Your task to perform on an android device: move an email to a new category in the gmail app Image 0: 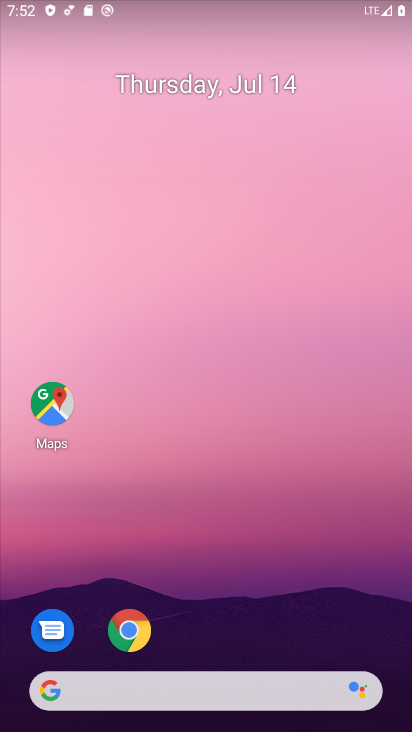
Step 0: drag from (219, 664) to (223, 377)
Your task to perform on an android device: move an email to a new category in the gmail app Image 1: 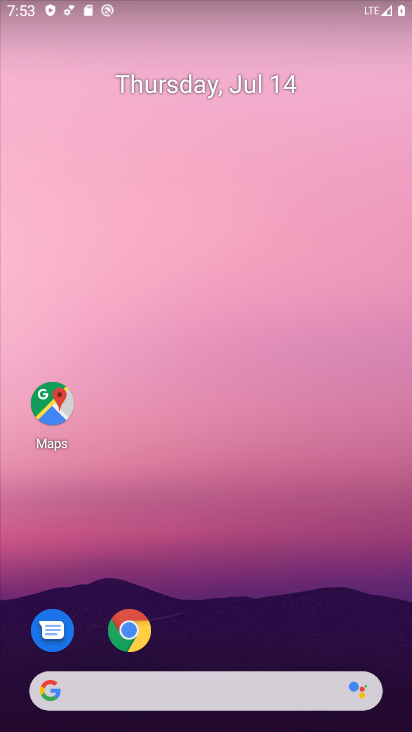
Step 1: drag from (171, 651) to (239, 174)
Your task to perform on an android device: move an email to a new category in the gmail app Image 2: 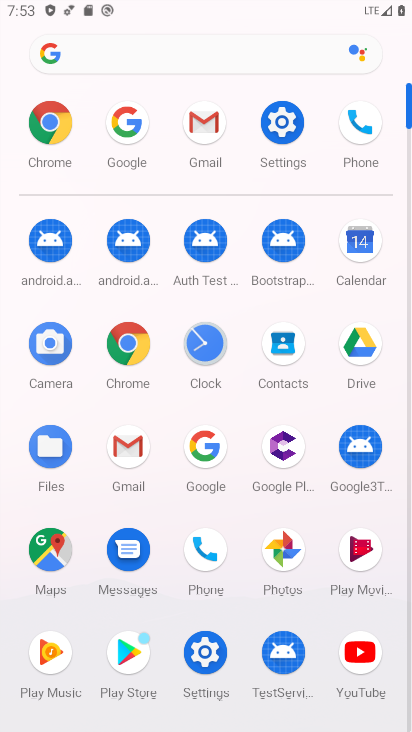
Step 2: click (194, 116)
Your task to perform on an android device: move an email to a new category in the gmail app Image 3: 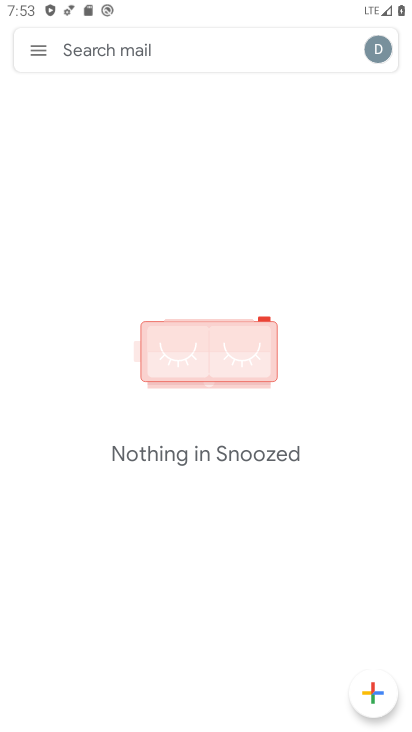
Step 3: click (33, 53)
Your task to perform on an android device: move an email to a new category in the gmail app Image 4: 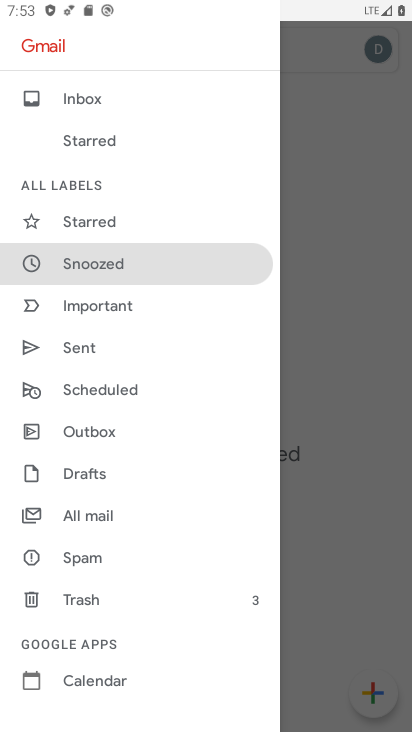
Step 4: click (84, 519)
Your task to perform on an android device: move an email to a new category in the gmail app Image 5: 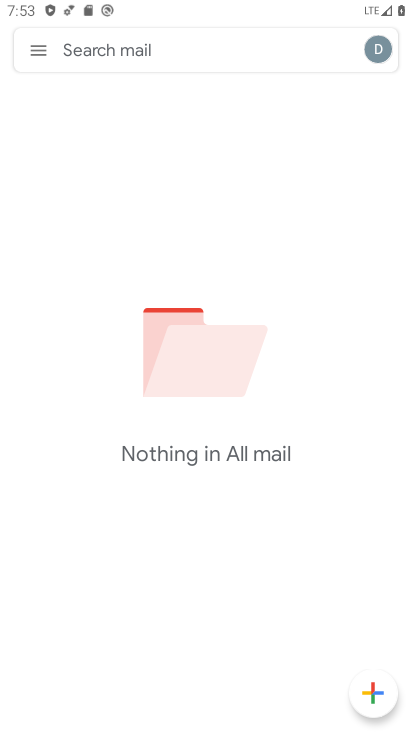
Step 5: task complete